Your task to perform on an android device: find which apps use the phone's location Image 0: 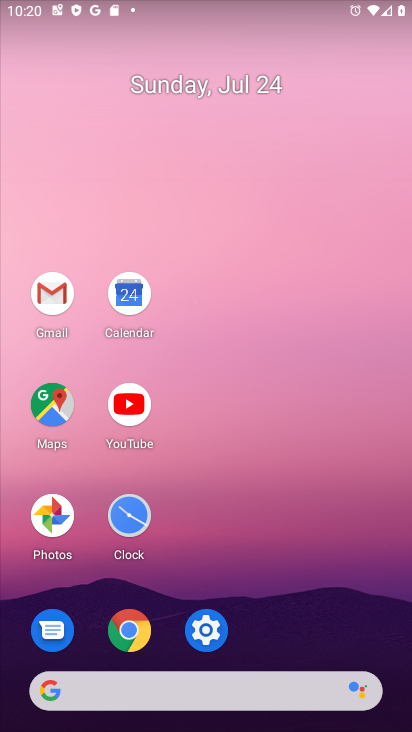
Step 0: click (207, 633)
Your task to perform on an android device: find which apps use the phone's location Image 1: 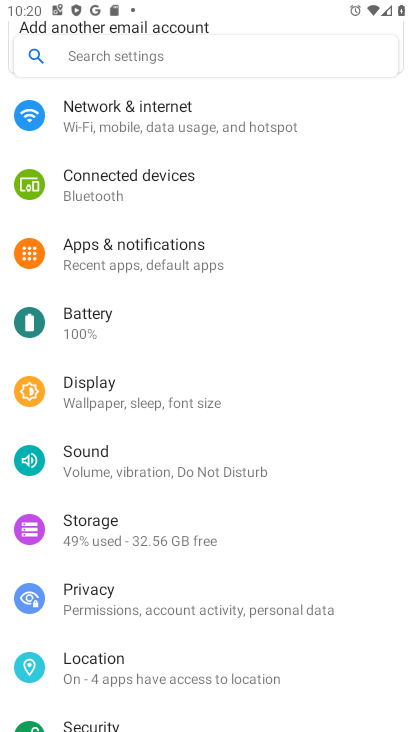
Step 1: click (91, 660)
Your task to perform on an android device: find which apps use the phone's location Image 2: 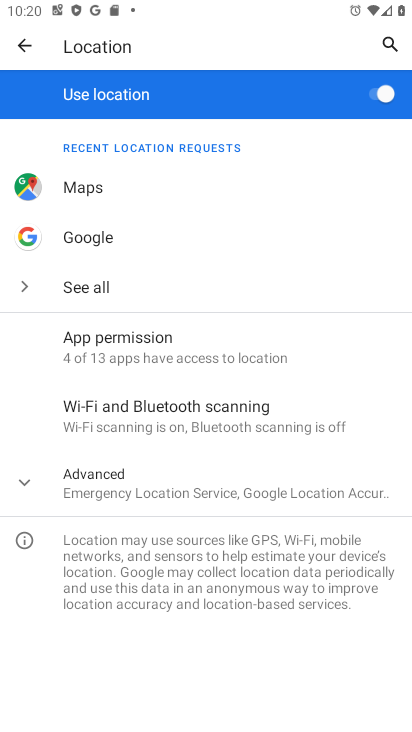
Step 2: click (88, 291)
Your task to perform on an android device: find which apps use the phone's location Image 3: 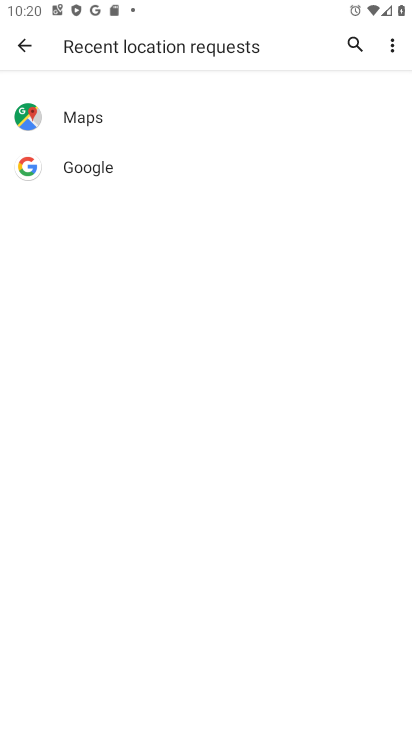
Step 3: task complete